Your task to perform on an android device: When is my next appointment? Image 0: 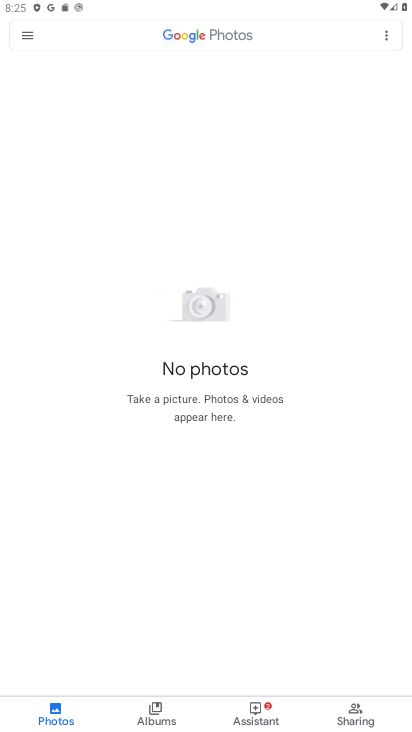
Step 0: press home button
Your task to perform on an android device: When is my next appointment? Image 1: 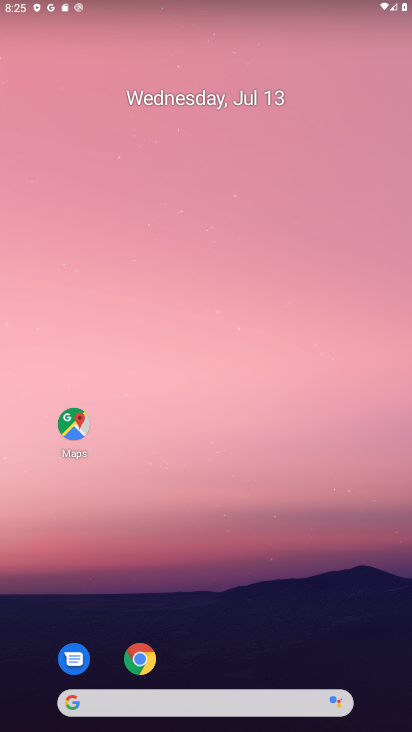
Step 1: drag from (300, 645) to (241, 249)
Your task to perform on an android device: When is my next appointment? Image 2: 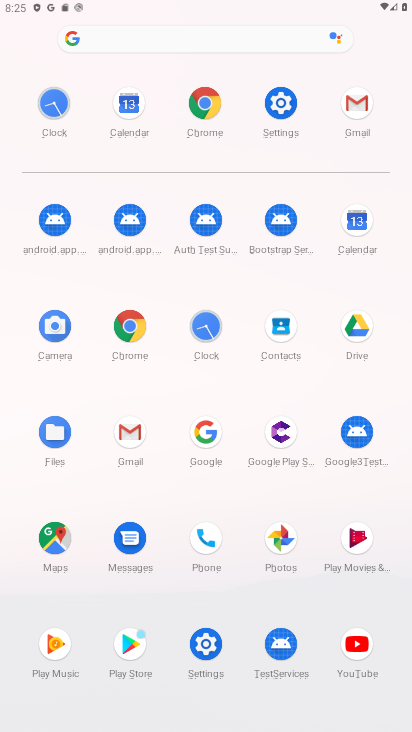
Step 2: click (121, 122)
Your task to perform on an android device: When is my next appointment? Image 3: 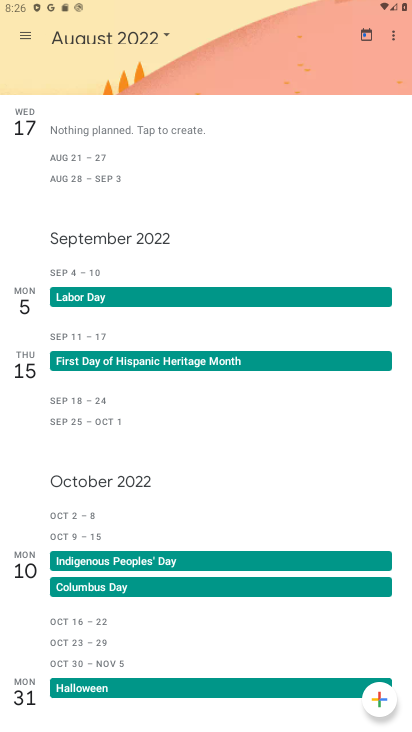
Step 3: task complete